Your task to perform on an android device: What is the news today? Image 0: 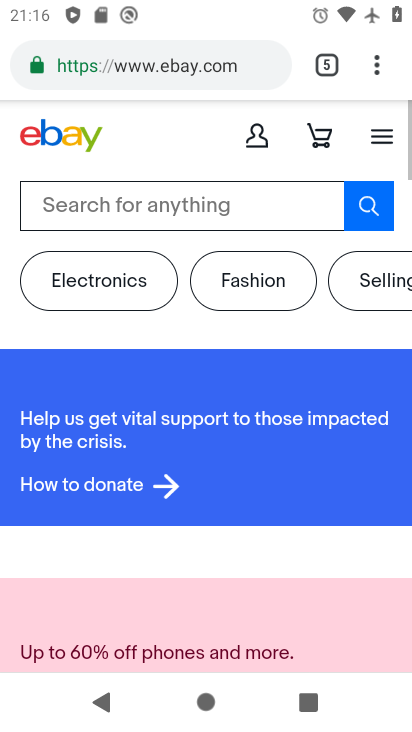
Step 0: press home button
Your task to perform on an android device: What is the news today? Image 1: 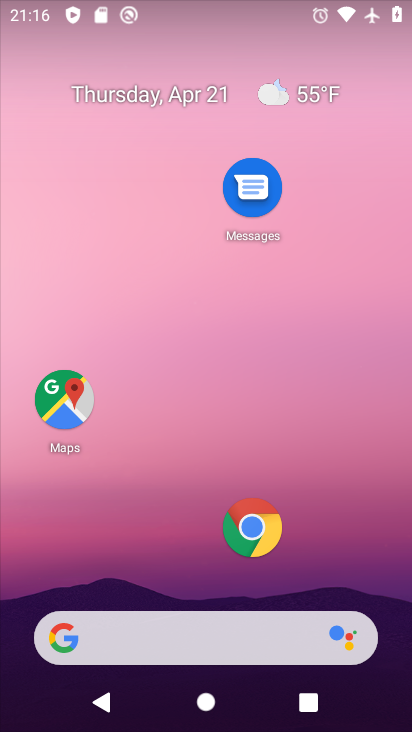
Step 1: drag from (12, 276) to (409, 280)
Your task to perform on an android device: What is the news today? Image 2: 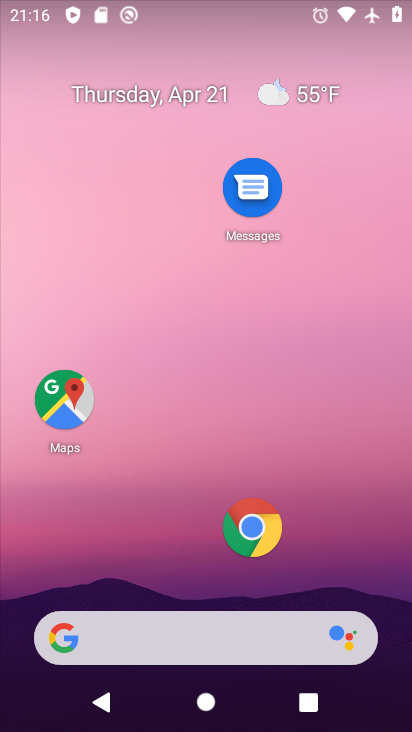
Step 2: drag from (105, 278) to (389, 308)
Your task to perform on an android device: What is the news today? Image 3: 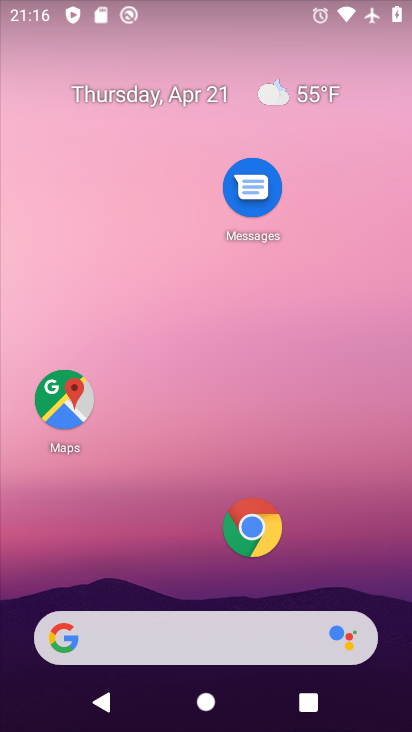
Step 3: click (66, 278)
Your task to perform on an android device: What is the news today? Image 4: 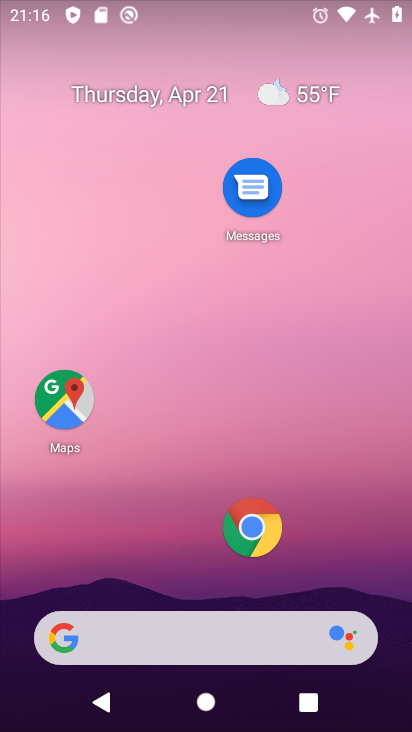
Step 4: task complete